Your task to perform on an android device: find snoozed emails in the gmail app Image 0: 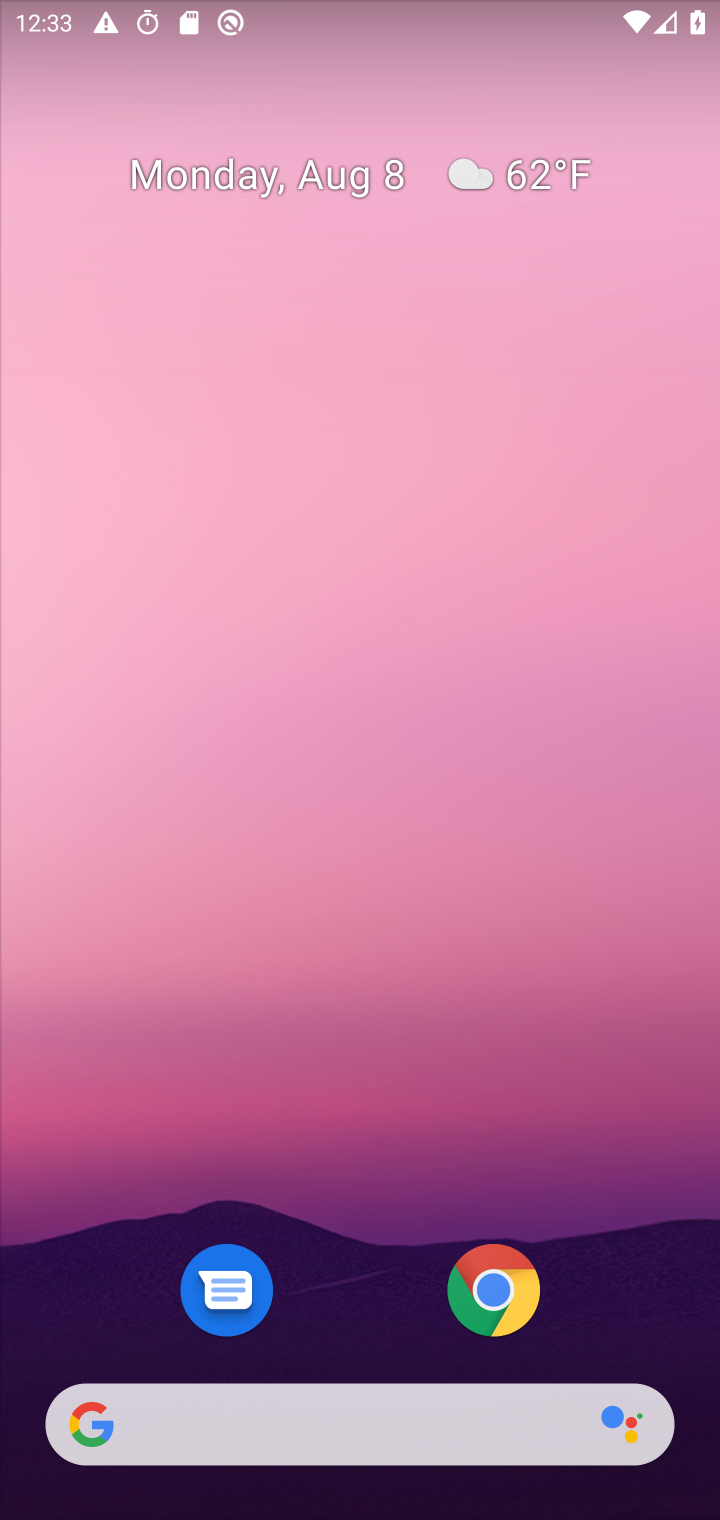
Step 0: drag from (321, 995) to (387, 366)
Your task to perform on an android device: find snoozed emails in the gmail app Image 1: 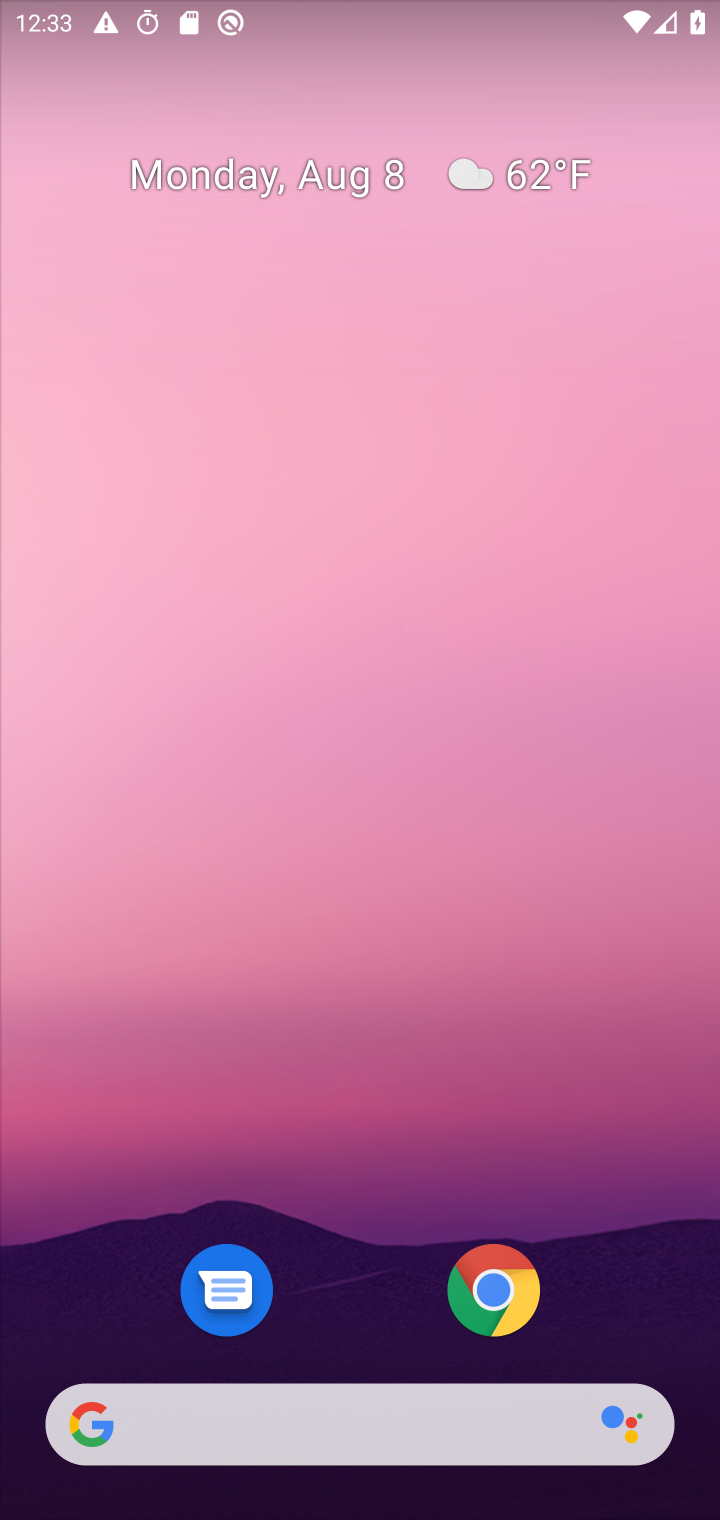
Step 1: drag from (326, 1335) to (428, 402)
Your task to perform on an android device: find snoozed emails in the gmail app Image 2: 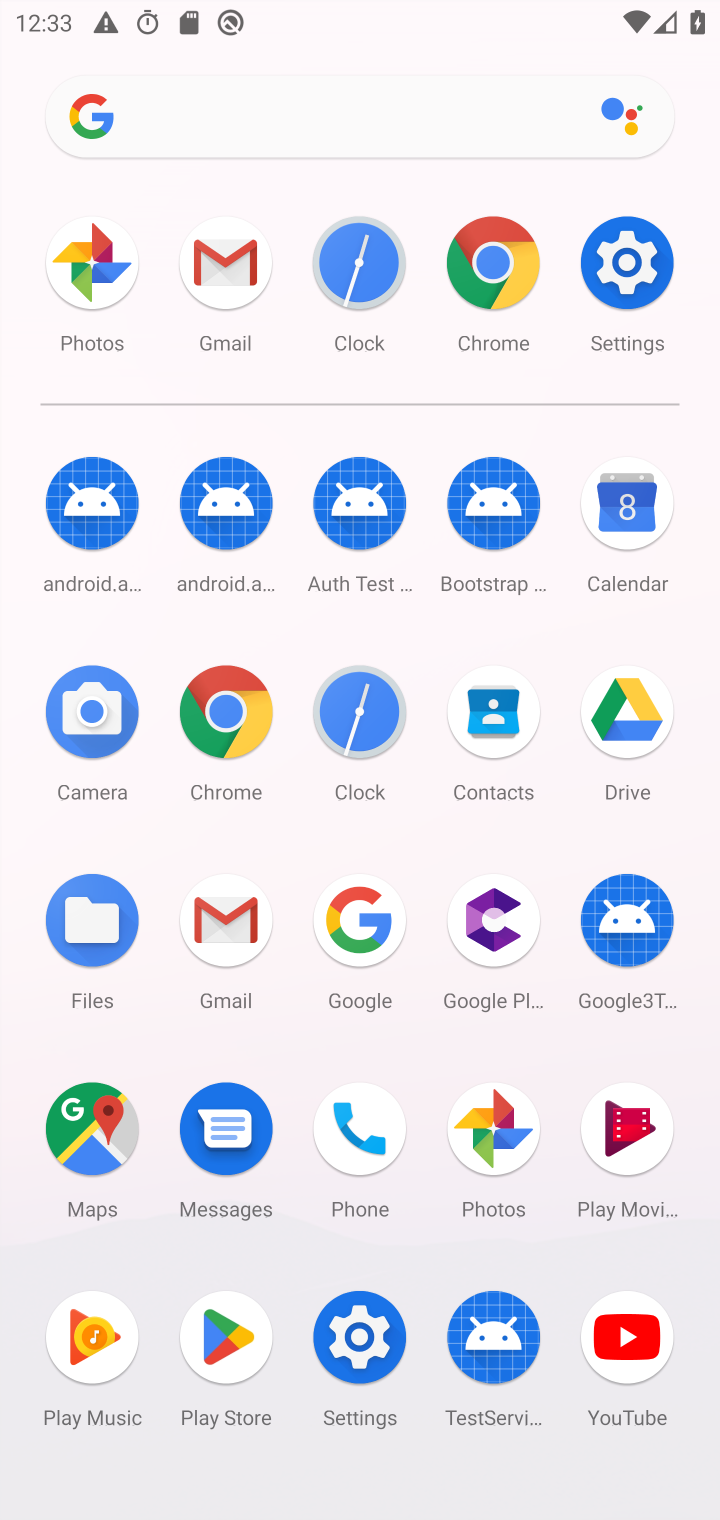
Step 2: click (237, 944)
Your task to perform on an android device: find snoozed emails in the gmail app Image 3: 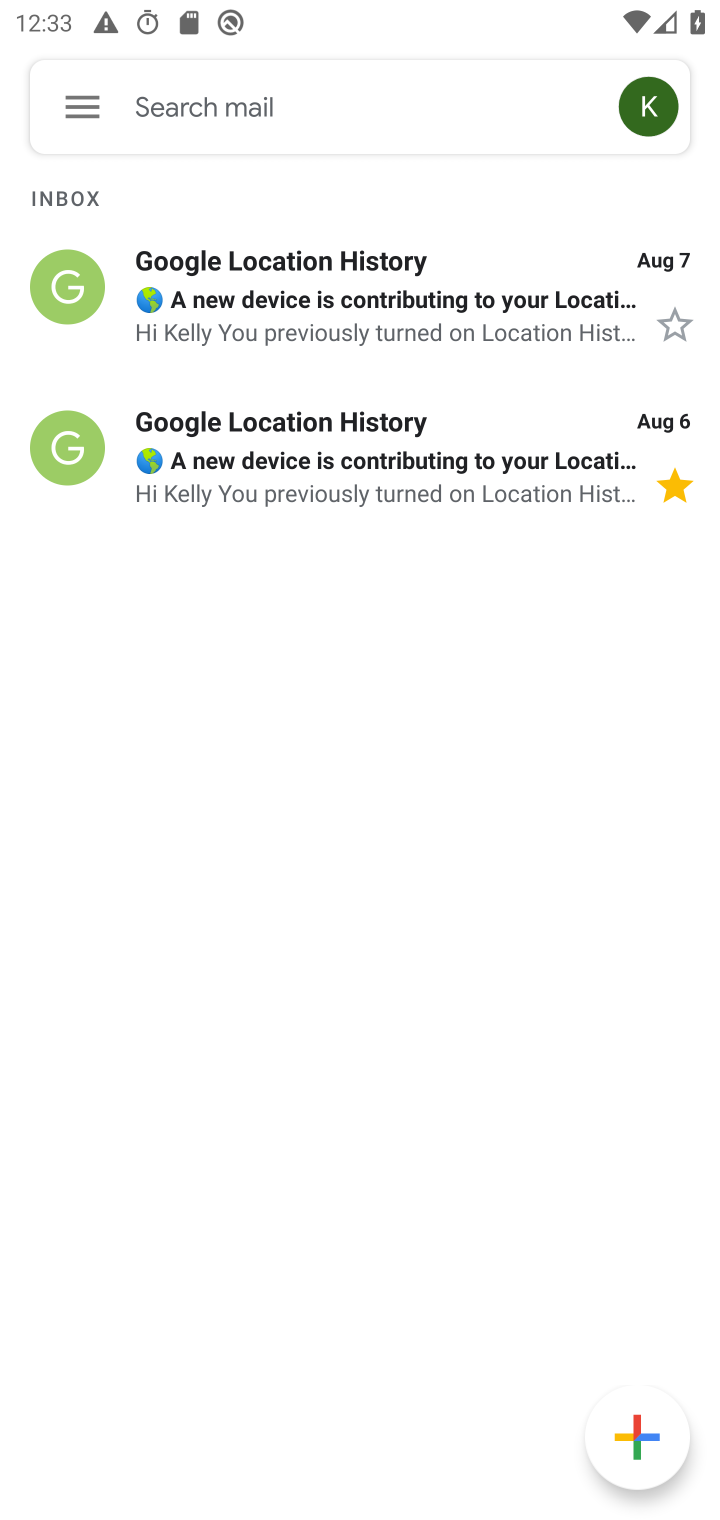
Step 3: click (94, 109)
Your task to perform on an android device: find snoozed emails in the gmail app Image 4: 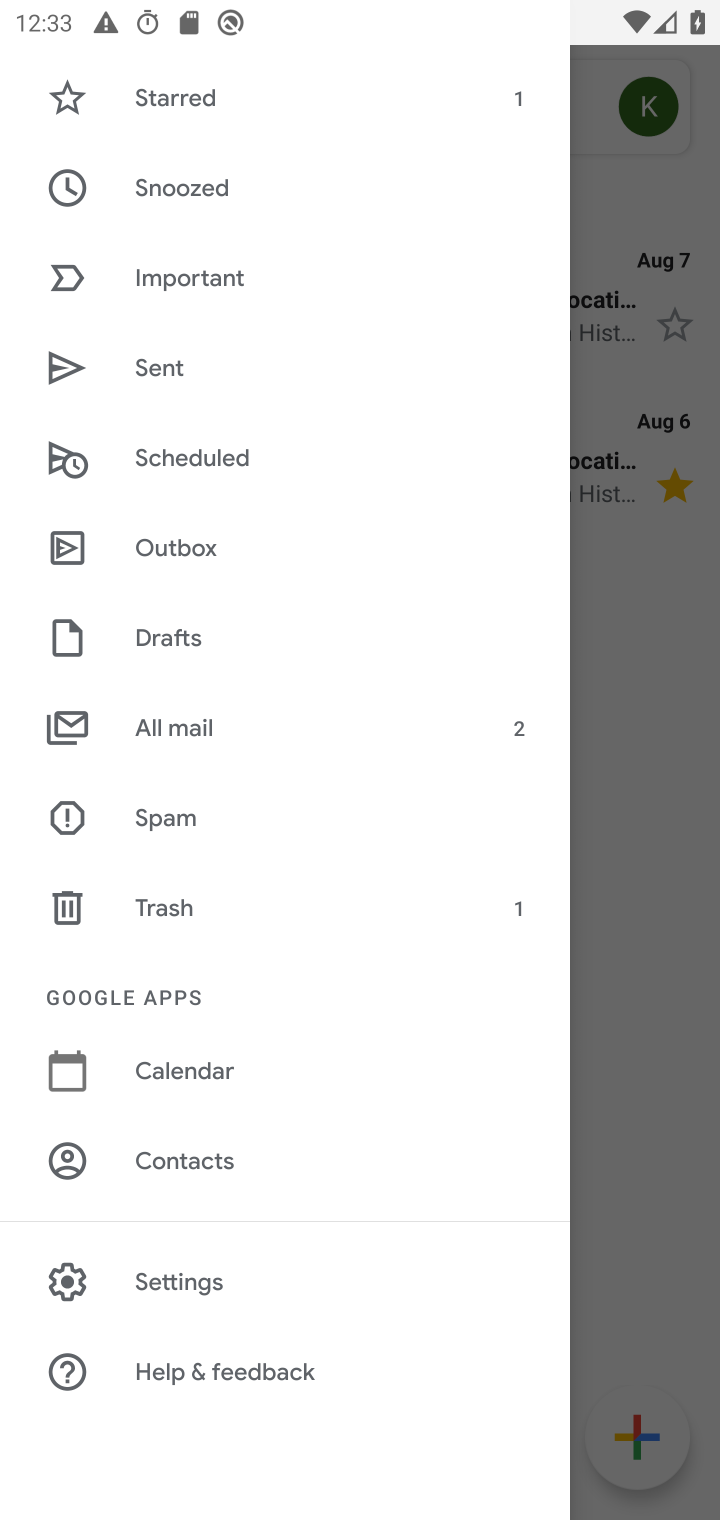
Step 4: click (177, 175)
Your task to perform on an android device: find snoozed emails in the gmail app Image 5: 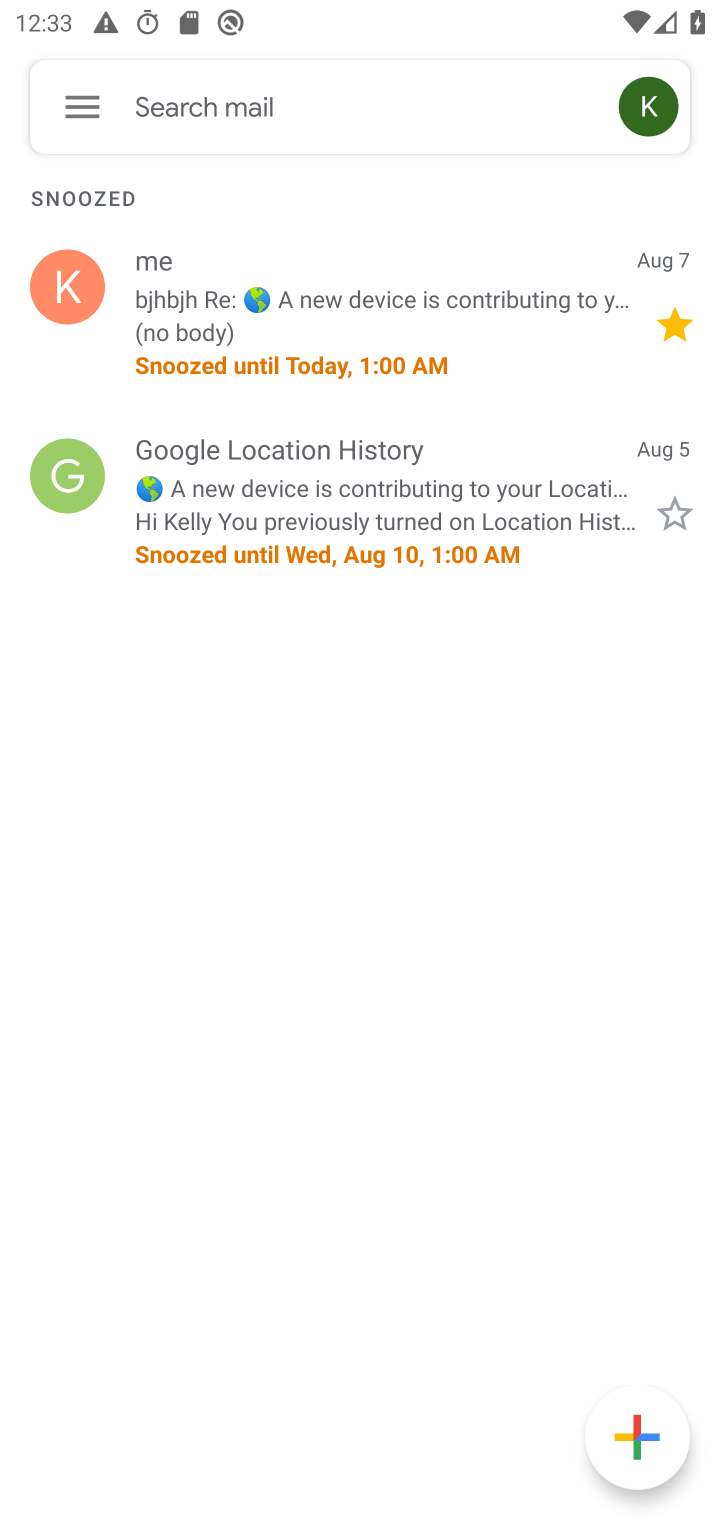
Step 5: task complete